Your task to perform on an android device: open a new tab in the chrome app Image 0: 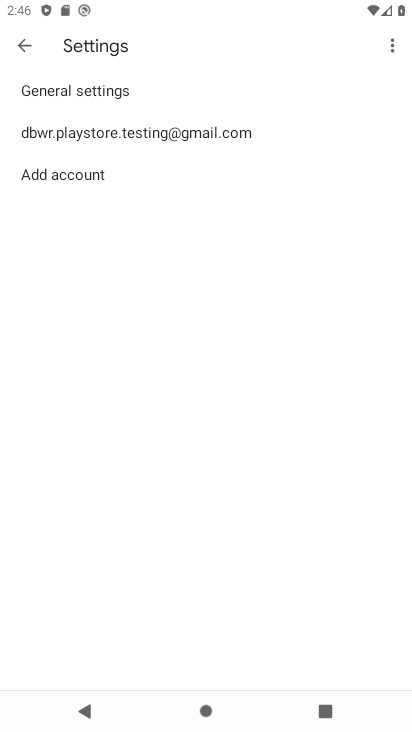
Step 0: click (22, 42)
Your task to perform on an android device: open a new tab in the chrome app Image 1: 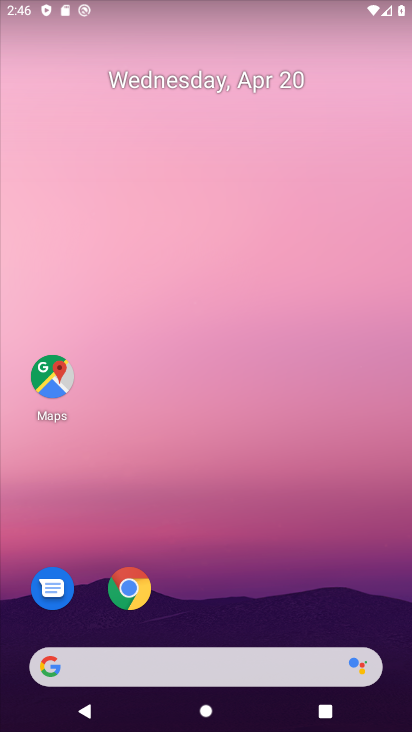
Step 1: drag from (233, 616) to (255, 166)
Your task to perform on an android device: open a new tab in the chrome app Image 2: 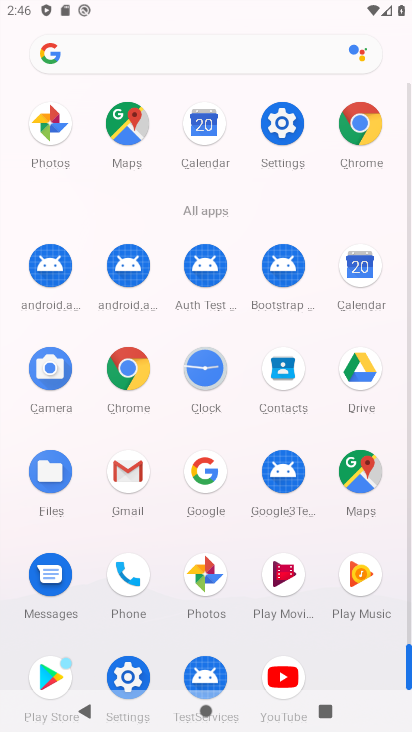
Step 2: click (136, 381)
Your task to perform on an android device: open a new tab in the chrome app Image 3: 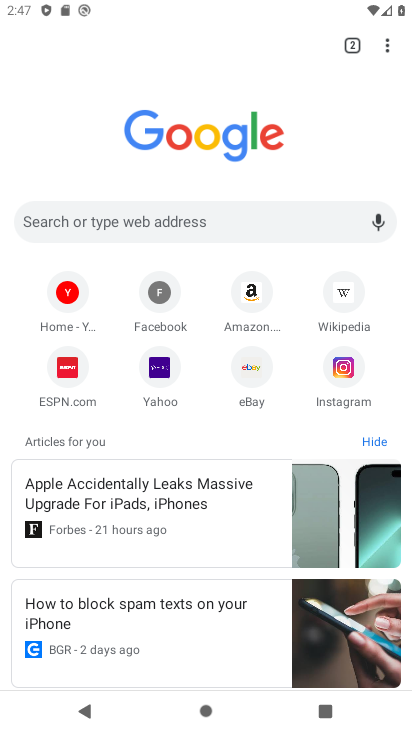
Step 3: click (380, 43)
Your task to perform on an android device: open a new tab in the chrome app Image 4: 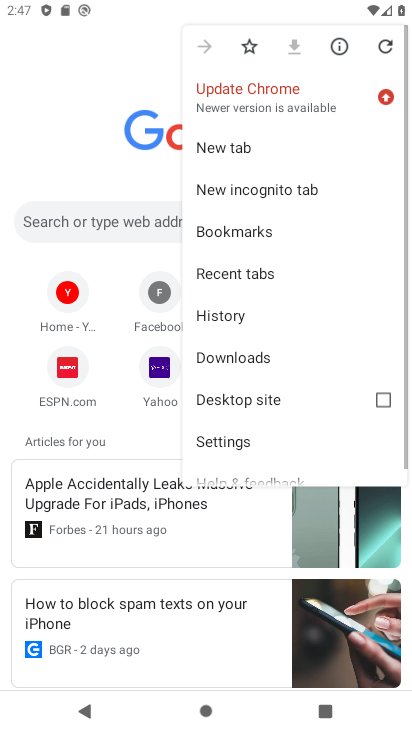
Step 4: click (247, 147)
Your task to perform on an android device: open a new tab in the chrome app Image 5: 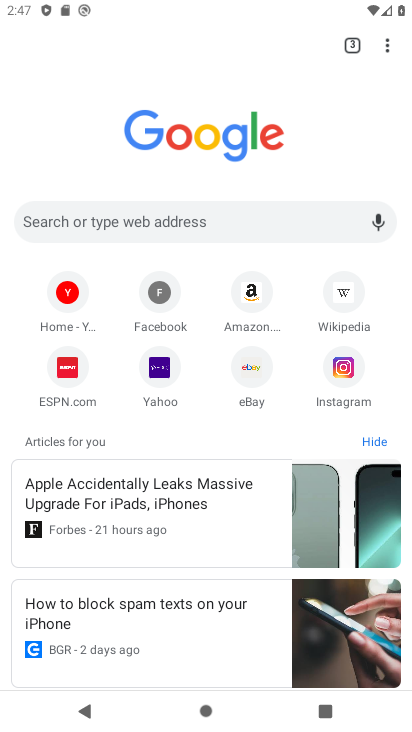
Step 5: task complete